Your task to perform on an android device: open app "Instagram" (install if not already installed) and enter user name: "nobler@yahoo.com" and password: "foraging" Image 0: 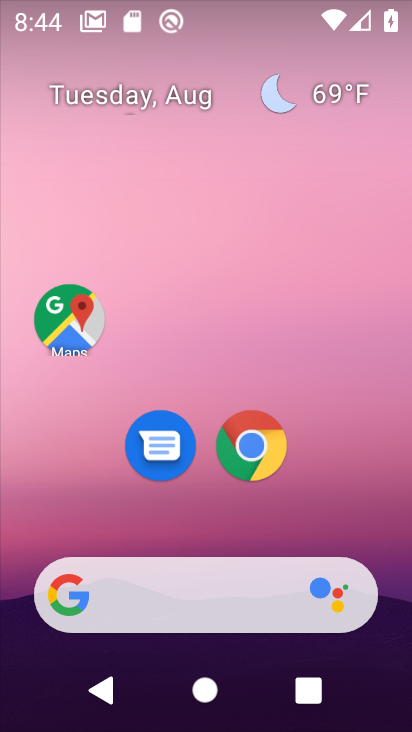
Step 0: drag from (207, 508) to (255, 2)
Your task to perform on an android device: open app "Instagram" (install if not already installed) and enter user name: "nobler@yahoo.com" and password: "foraging" Image 1: 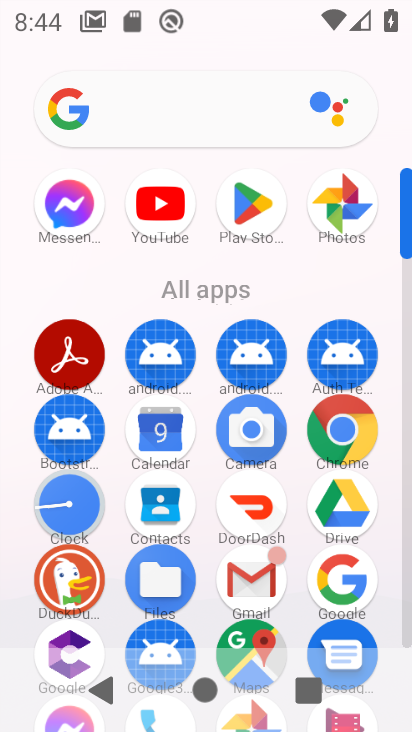
Step 1: click (252, 207)
Your task to perform on an android device: open app "Instagram" (install if not already installed) and enter user name: "nobler@yahoo.com" and password: "foraging" Image 2: 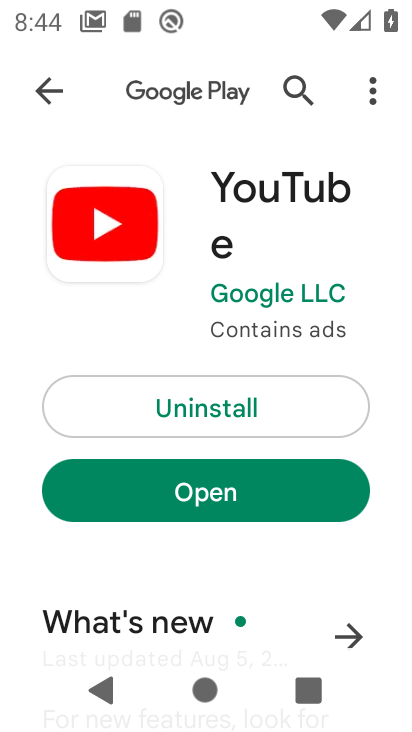
Step 2: click (28, 85)
Your task to perform on an android device: open app "Instagram" (install if not already installed) and enter user name: "nobler@yahoo.com" and password: "foraging" Image 3: 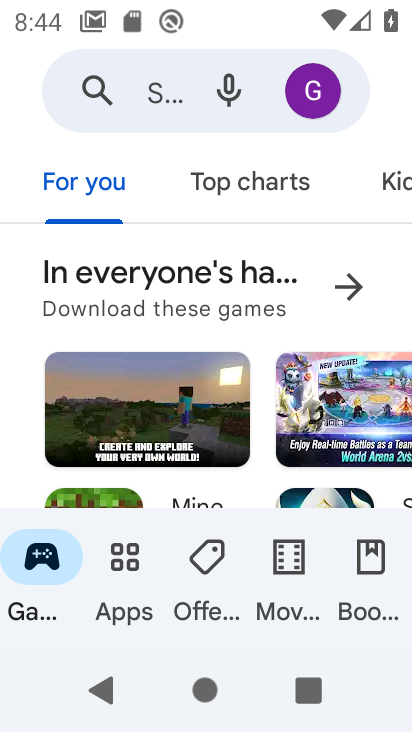
Step 3: click (175, 86)
Your task to perform on an android device: open app "Instagram" (install if not already installed) and enter user name: "nobler@yahoo.com" and password: "foraging" Image 4: 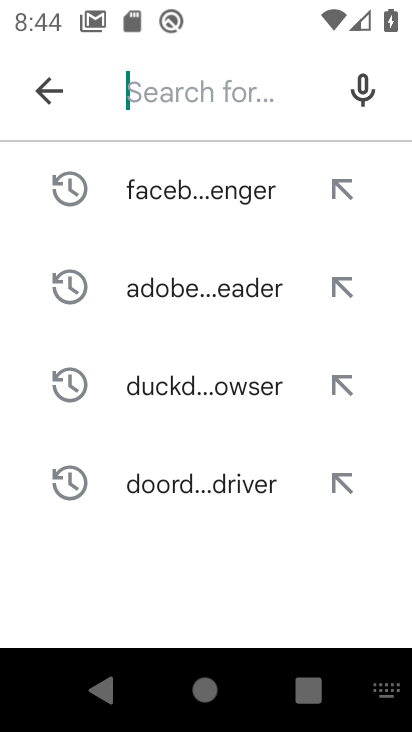
Step 4: type "Instagram"
Your task to perform on an android device: open app "Instagram" (install if not already installed) and enter user name: "nobler@yahoo.com" and password: "foraging" Image 5: 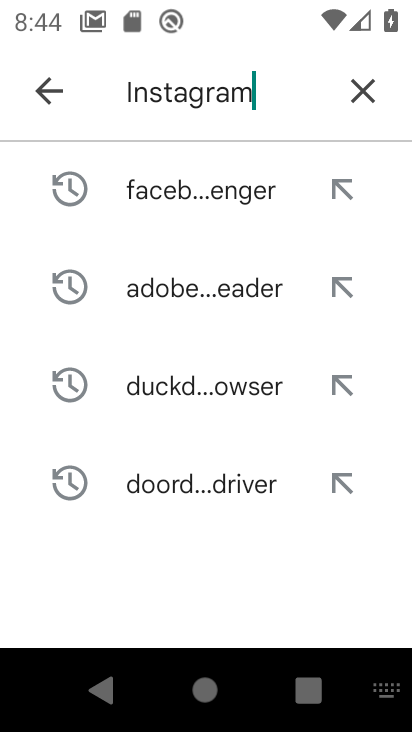
Step 5: type ""
Your task to perform on an android device: open app "Instagram" (install if not already installed) and enter user name: "nobler@yahoo.com" and password: "foraging" Image 6: 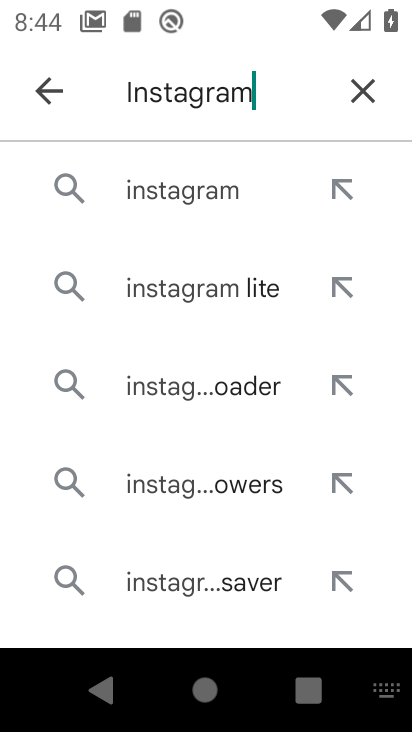
Step 6: click (241, 194)
Your task to perform on an android device: open app "Instagram" (install if not already installed) and enter user name: "nobler@yahoo.com" and password: "foraging" Image 7: 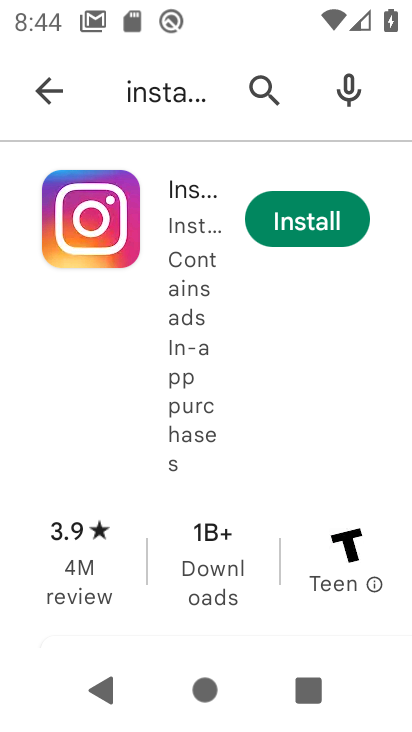
Step 7: click (296, 223)
Your task to perform on an android device: open app "Instagram" (install if not already installed) and enter user name: "nobler@yahoo.com" and password: "foraging" Image 8: 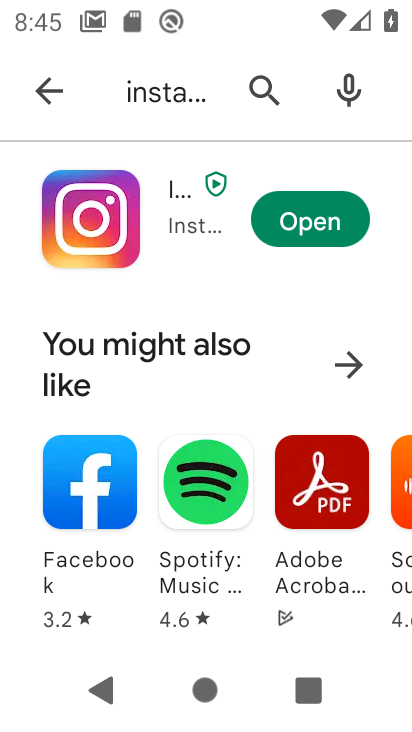
Step 8: click (319, 234)
Your task to perform on an android device: open app "Instagram" (install if not already installed) and enter user name: "nobler@yahoo.com" and password: "foraging" Image 9: 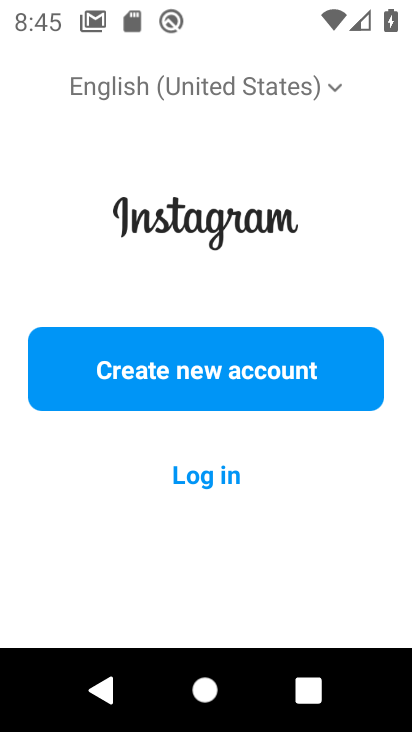
Step 9: click (217, 472)
Your task to perform on an android device: open app "Instagram" (install if not already installed) and enter user name: "nobler@yahoo.com" and password: "foraging" Image 10: 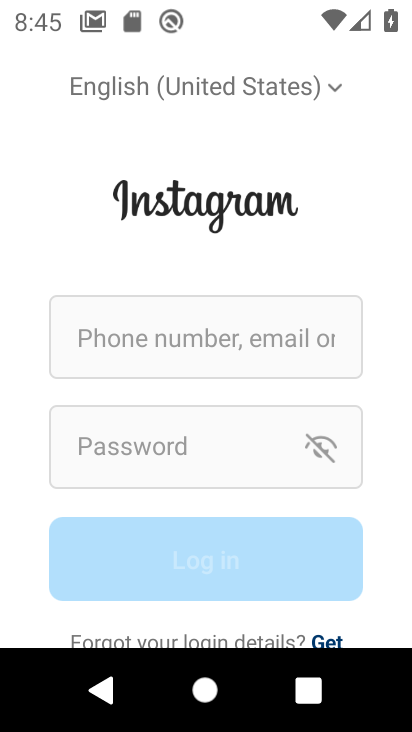
Step 10: click (158, 360)
Your task to perform on an android device: open app "Instagram" (install if not already installed) and enter user name: "nobler@yahoo.com" and password: "foraging" Image 11: 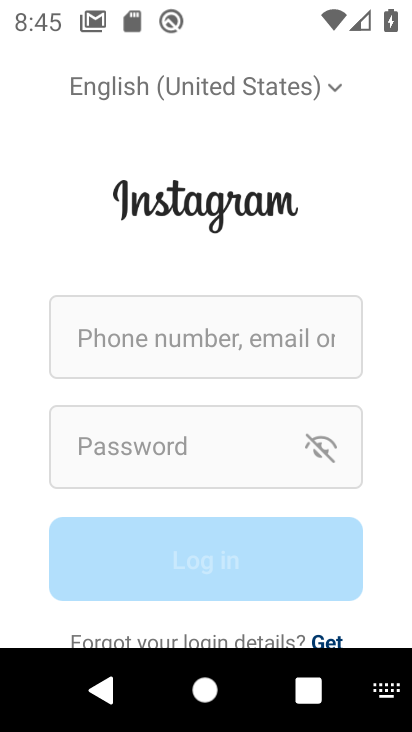
Step 11: type "nobler@yahoo.com"
Your task to perform on an android device: open app "Instagram" (install if not already installed) and enter user name: "nobler@yahoo.com" and password: "foraging" Image 12: 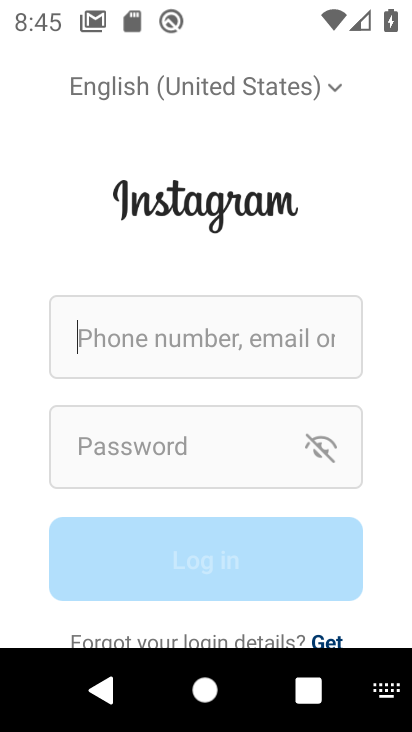
Step 12: click (165, 447)
Your task to perform on an android device: open app "Instagram" (install if not already installed) and enter user name: "nobler@yahoo.com" and password: "foraging" Image 13: 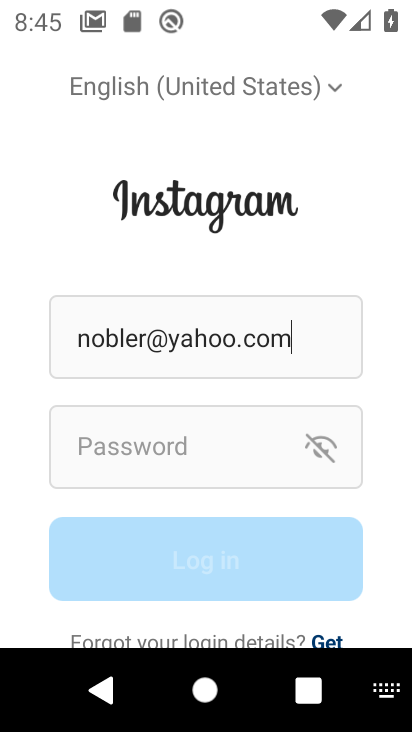
Step 13: type ""
Your task to perform on an android device: open app "Instagram" (install if not already installed) and enter user name: "nobler@yahoo.com" and password: "foraging" Image 14: 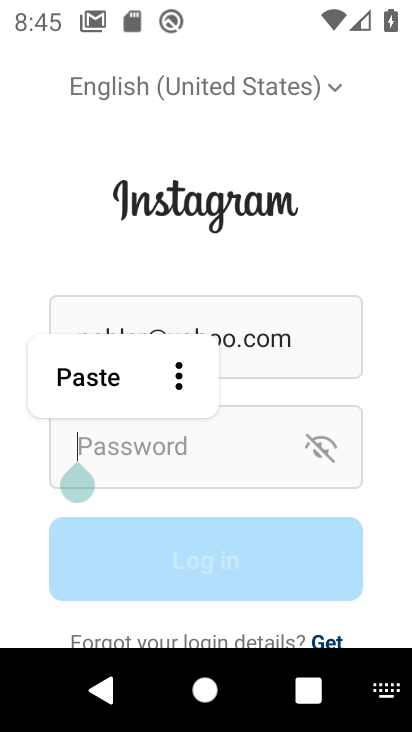
Step 14: type "foraging"
Your task to perform on an android device: open app "Instagram" (install if not already installed) and enter user name: "nobler@yahoo.com" and password: "foraging" Image 15: 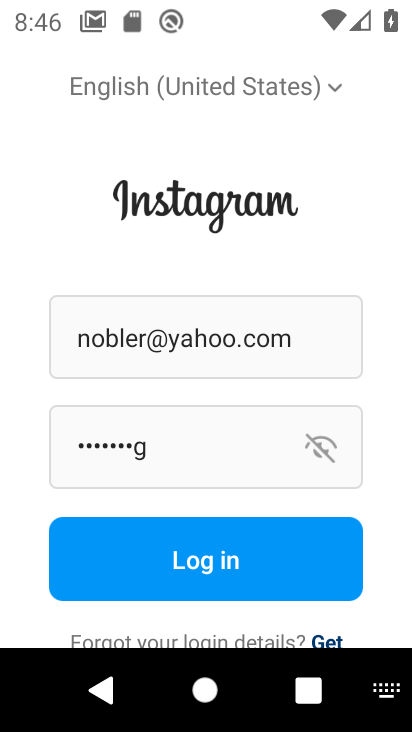
Step 15: click (260, 556)
Your task to perform on an android device: open app "Instagram" (install if not already installed) and enter user name: "nobler@yahoo.com" and password: "foraging" Image 16: 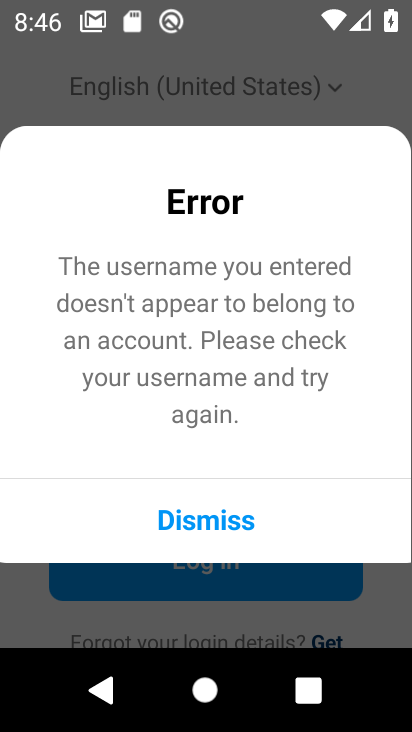
Step 16: task complete